Your task to perform on an android device: open app "Mercado Libre" (install if not already installed), go to login, and select forgot password Image 0: 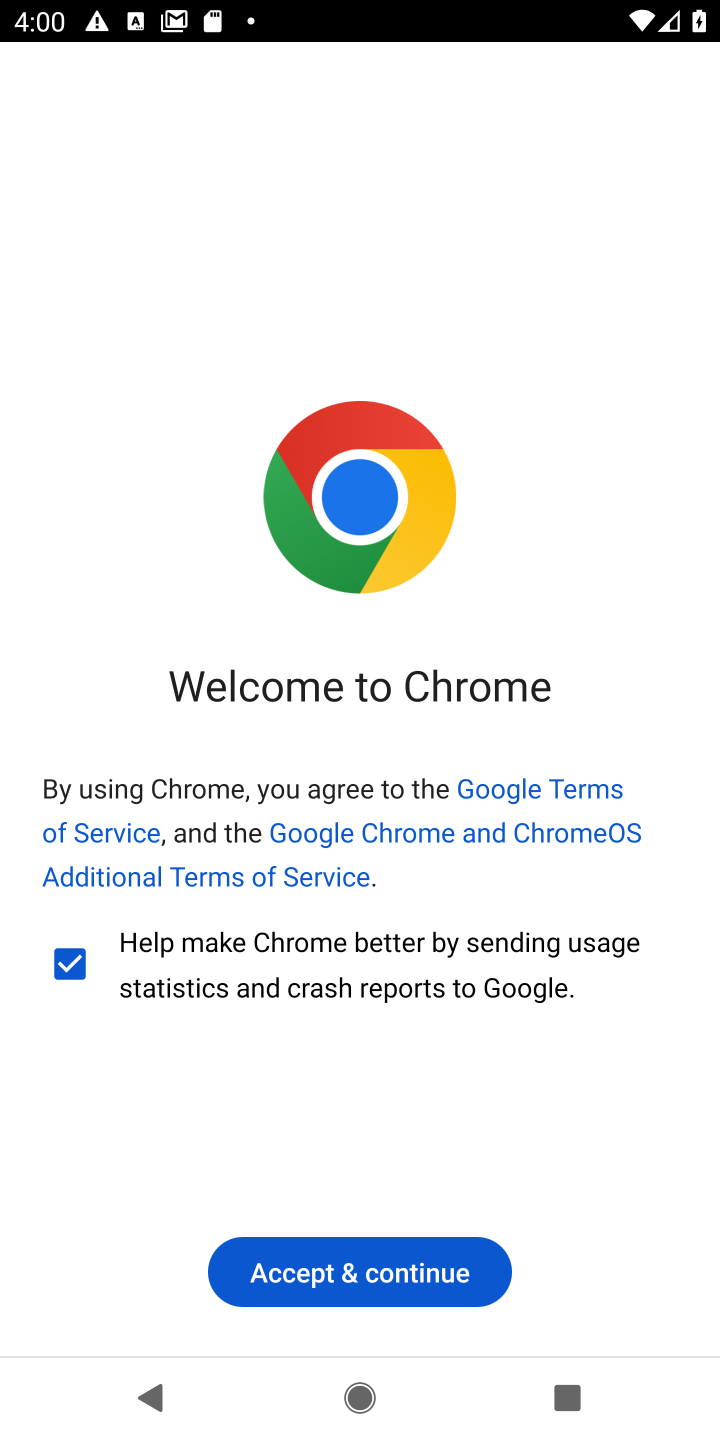
Step 0: press home button
Your task to perform on an android device: open app "Mercado Libre" (install if not already installed), go to login, and select forgot password Image 1: 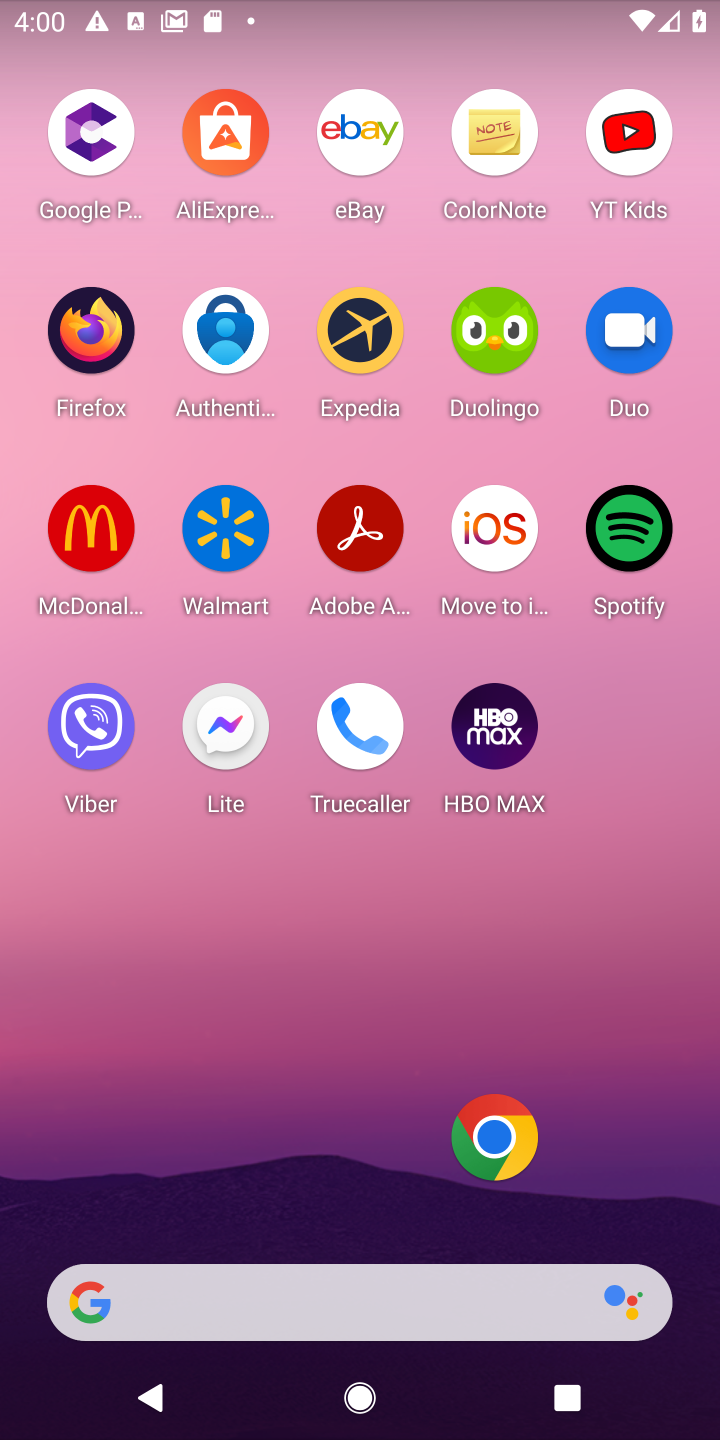
Step 1: drag from (329, 1192) to (352, 478)
Your task to perform on an android device: open app "Mercado Libre" (install if not already installed), go to login, and select forgot password Image 2: 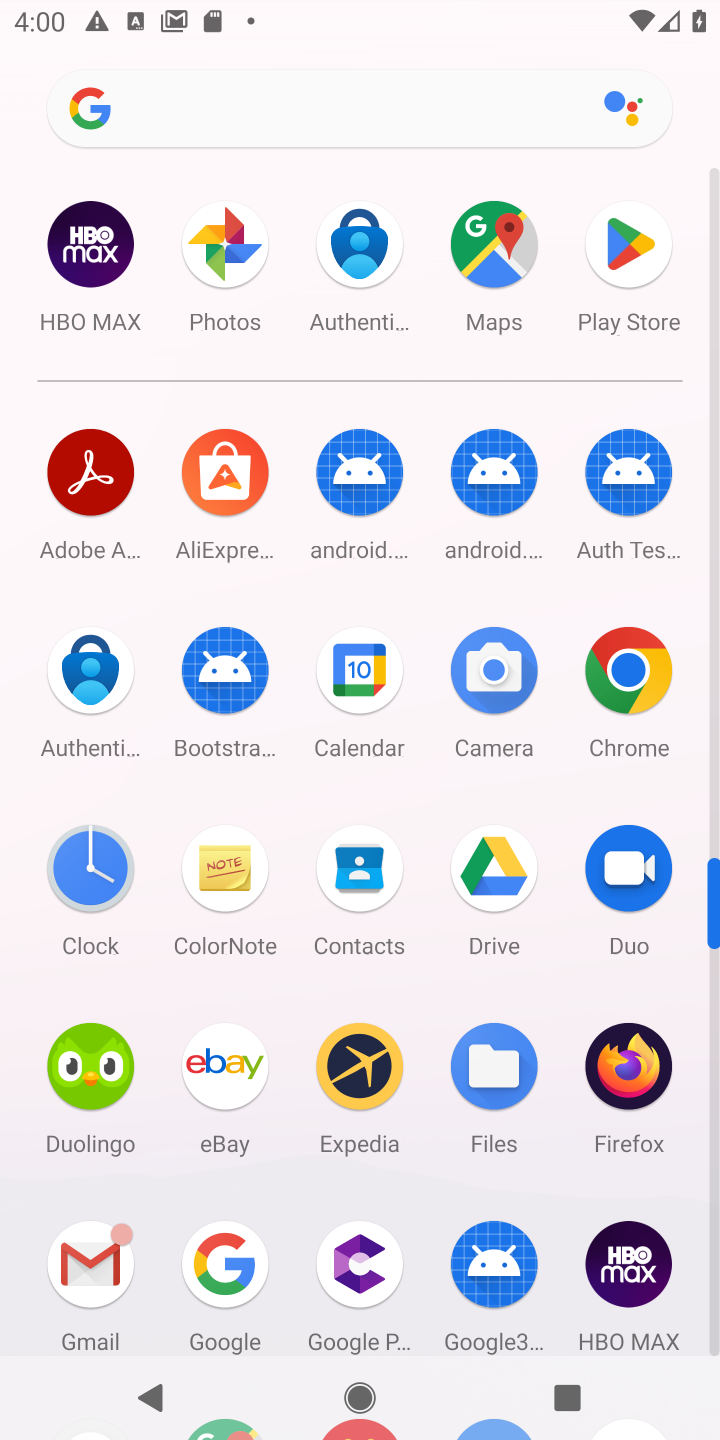
Step 2: click (643, 248)
Your task to perform on an android device: open app "Mercado Libre" (install if not already installed), go to login, and select forgot password Image 3: 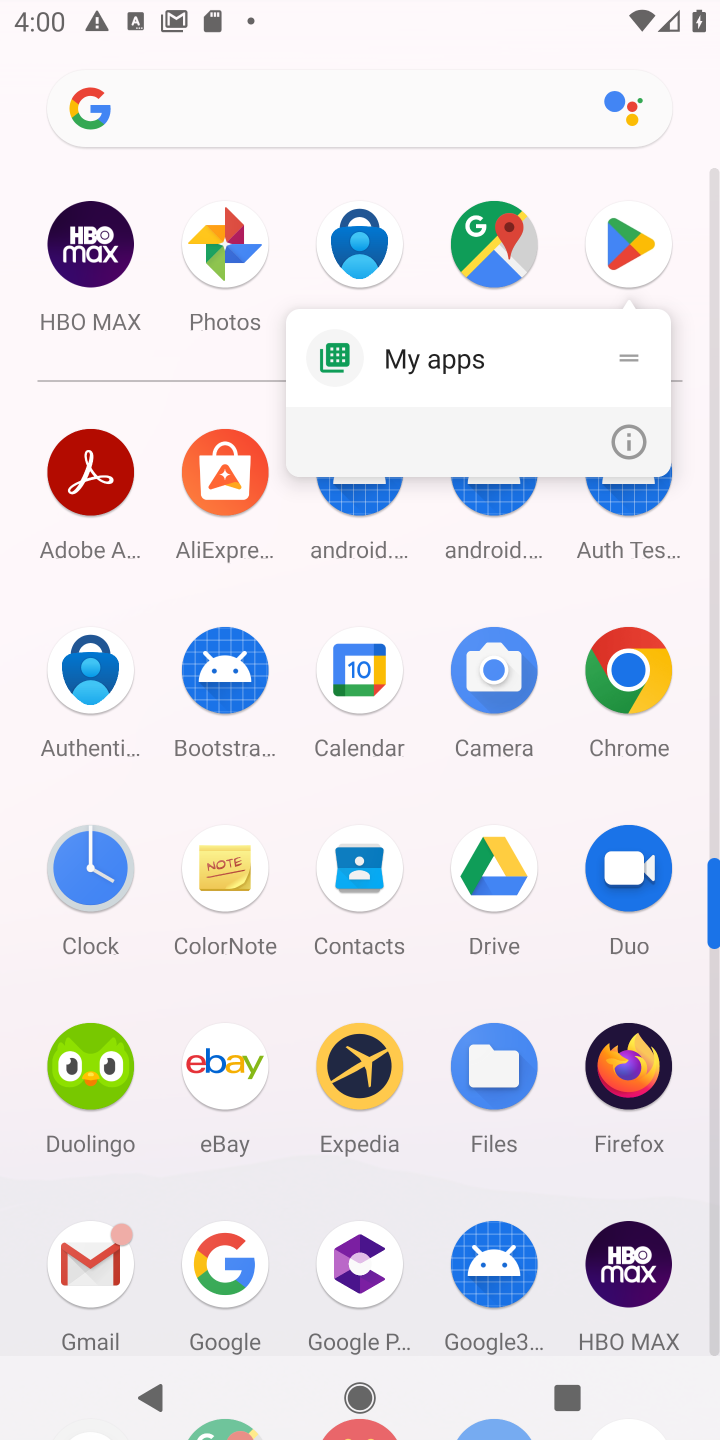
Step 3: click (631, 256)
Your task to perform on an android device: open app "Mercado Libre" (install if not already installed), go to login, and select forgot password Image 4: 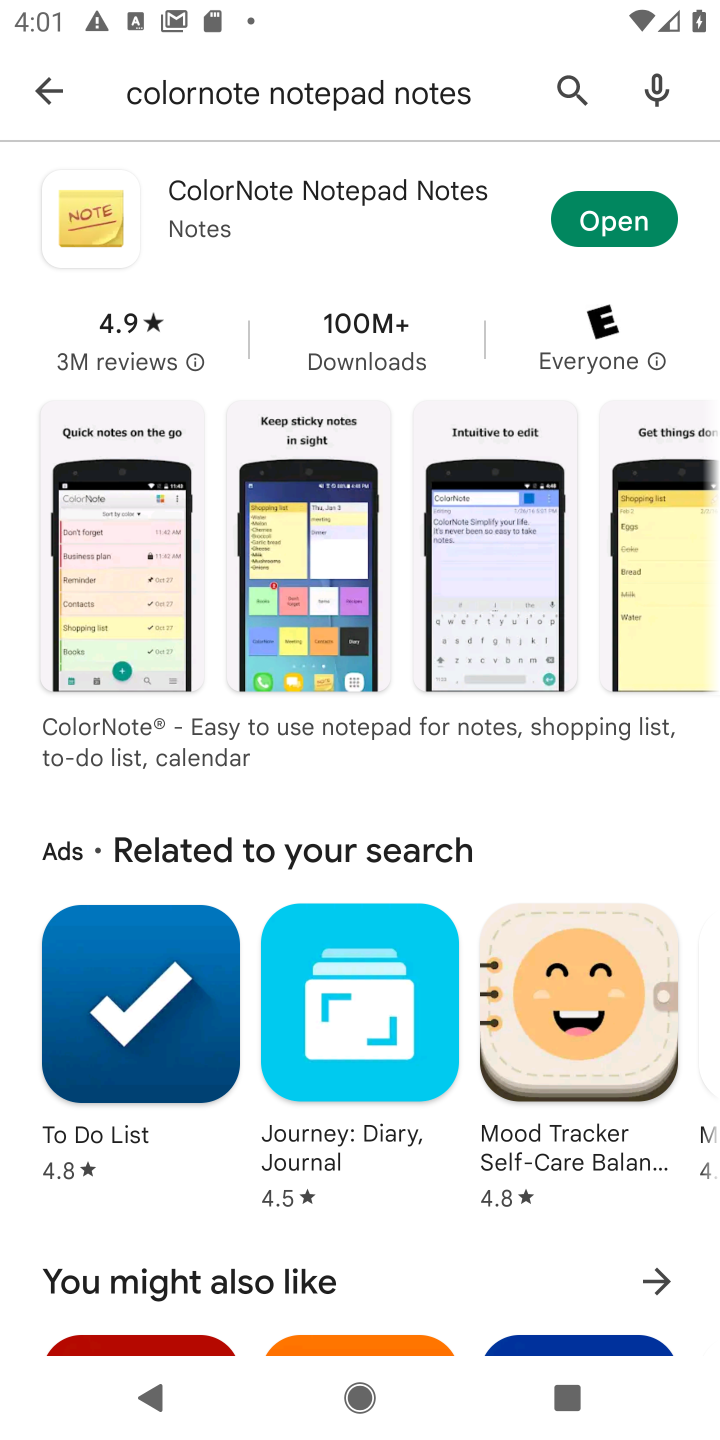
Step 4: click (243, 105)
Your task to perform on an android device: open app "Mercado Libre" (install if not already installed), go to login, and select forgot password Image 5: 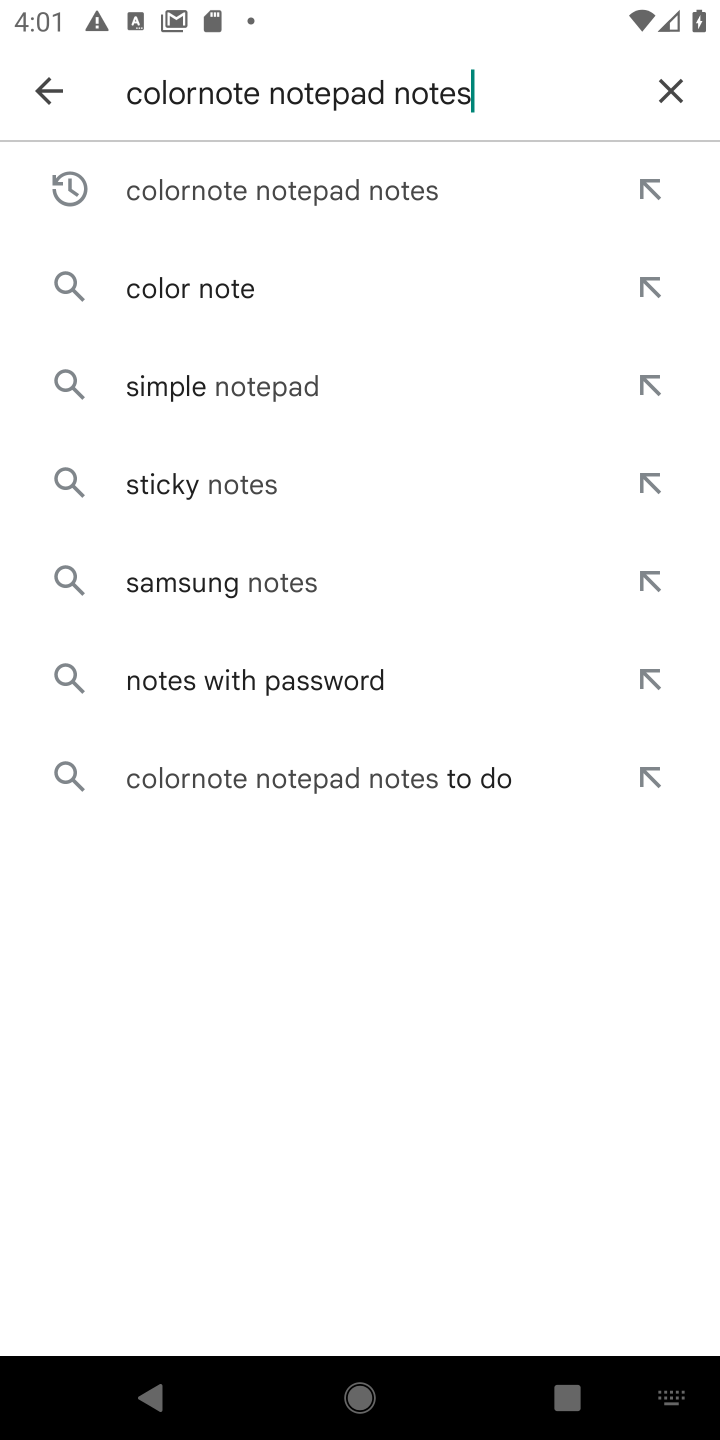
Step 5: click (664, 83)
Your task to perform on an android device: open app "Mercado Libre" (install if not already installed), go to login, and select forgot password Image 6: 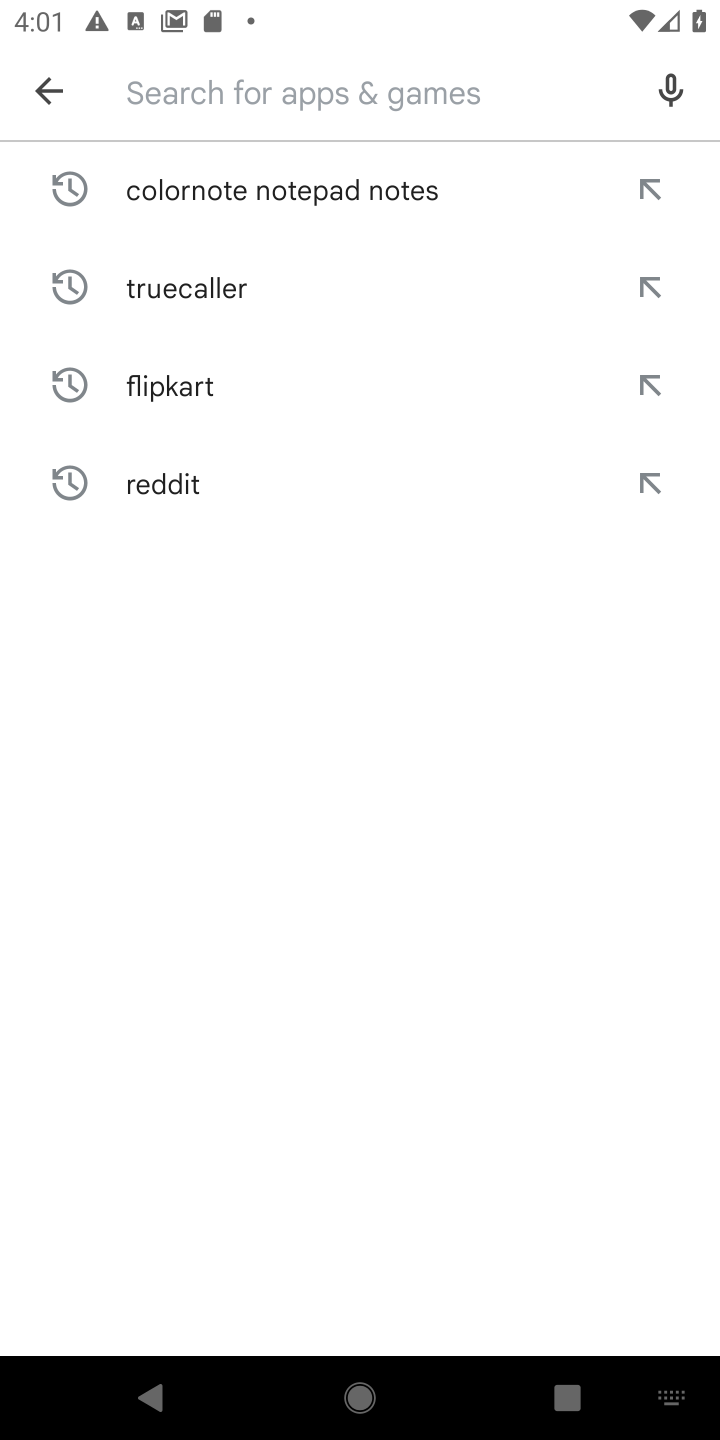
Step 6: type "mercado libre"
Your task to perform on an android device: open app "Mercado Libre" (install if not already installed), go to login, and select forgot password Image 7: 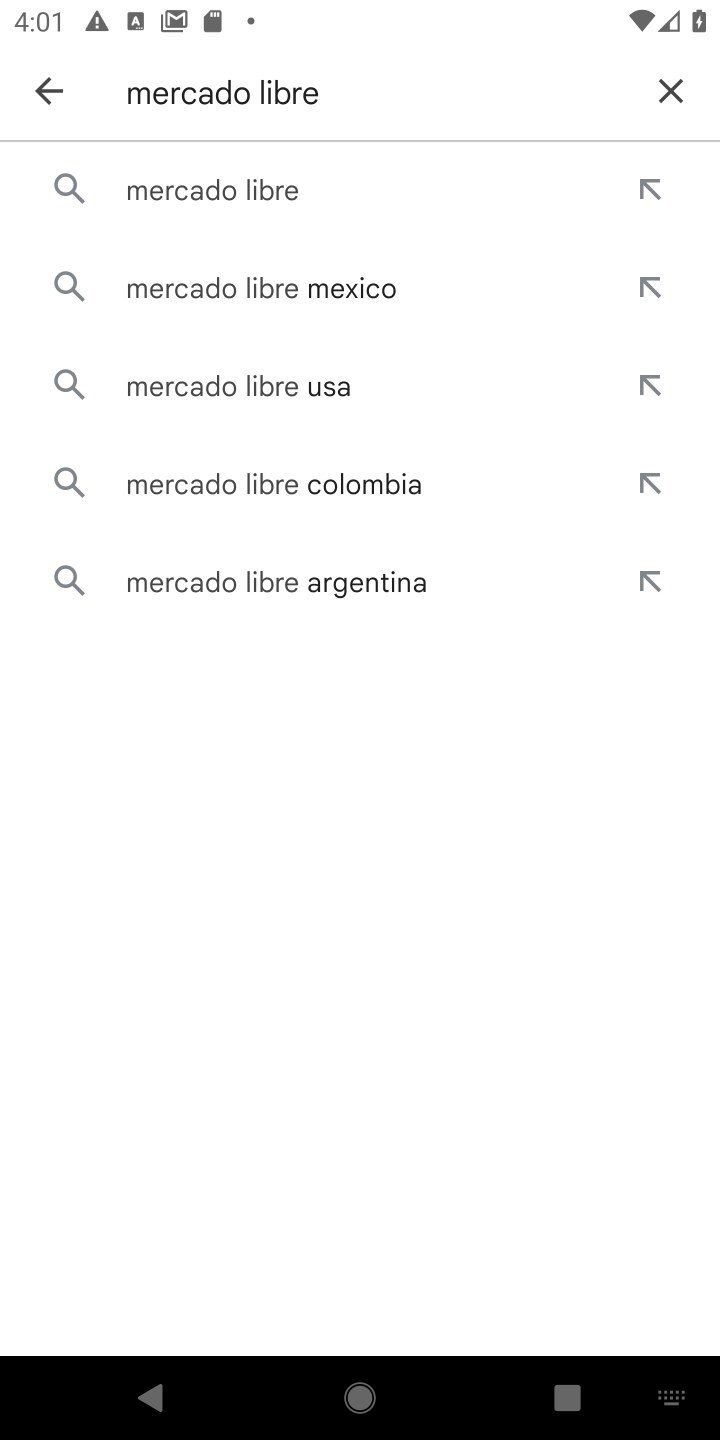
Step 7: click (304, 194)
Your task to perform on an android device: open app "Mercado Libre" (install if not already installed), go to login, and select forgot password Image 8: 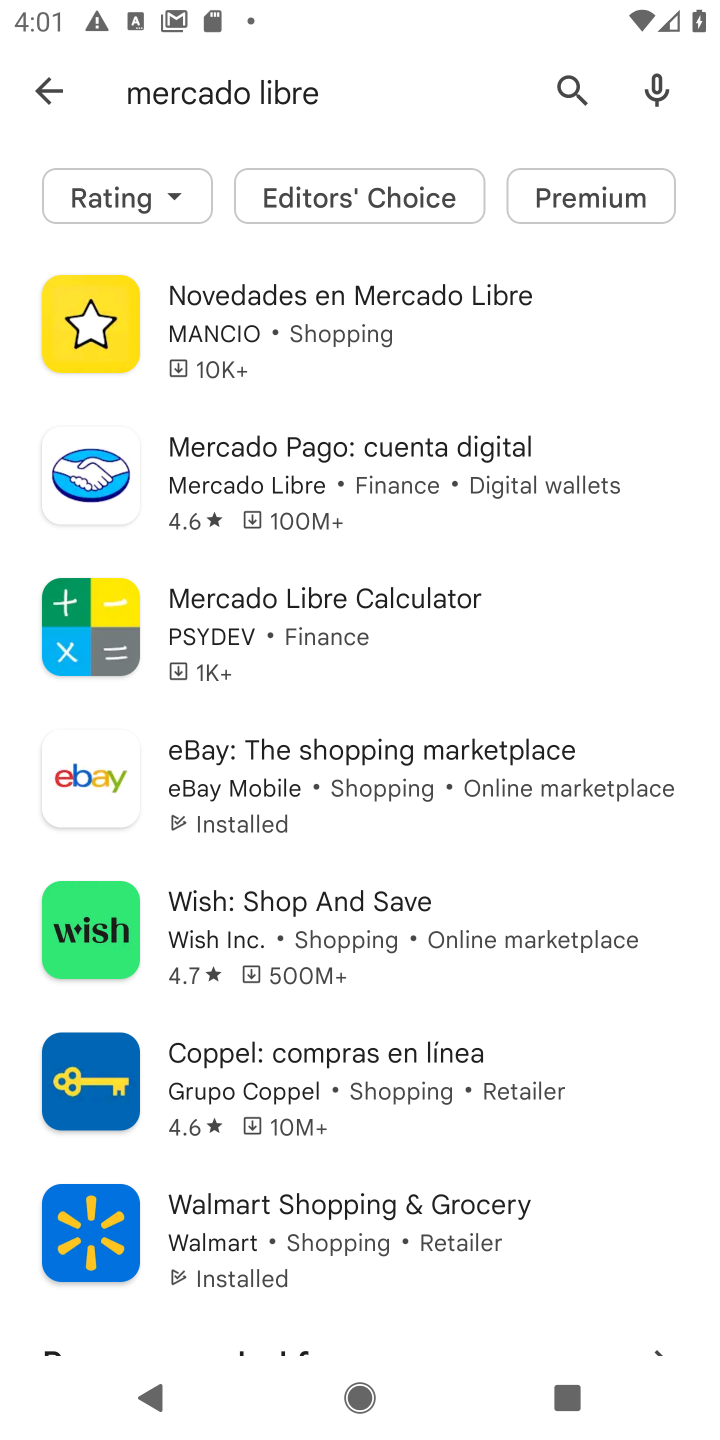
Step 8: task complete